Your task to perform on an android device: Open Android settings Image 0: 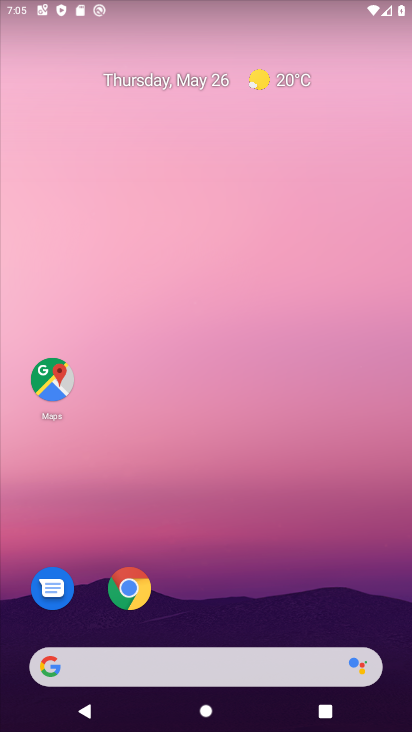
Step 0: drag from (387, 634) to (259, 8)
Your task to perform on an android device: Open Android settings Image 1: 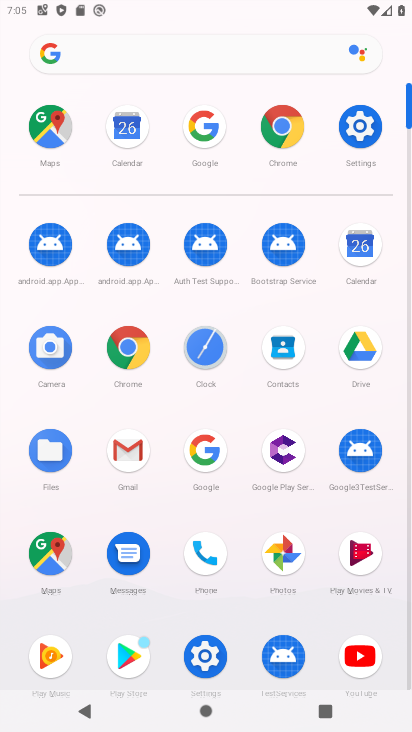
Step 1: click (351, 135)
Your task to perform on an android device: Open Android settings Image 2: 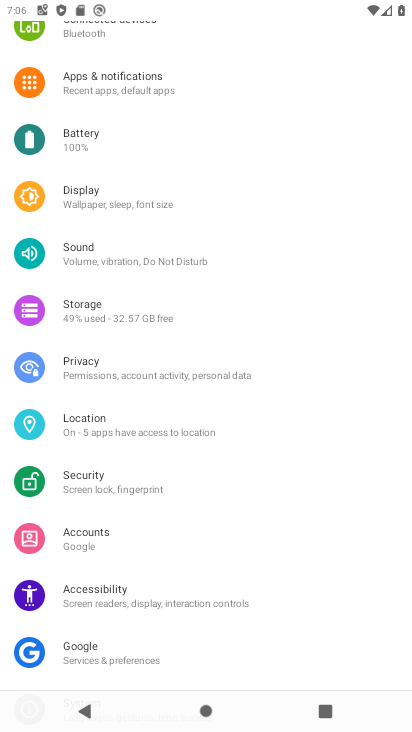
Step 2: drag from (108, 622) to (133, 93)
Your task to perform on an android device: Open Android settings Image 3: 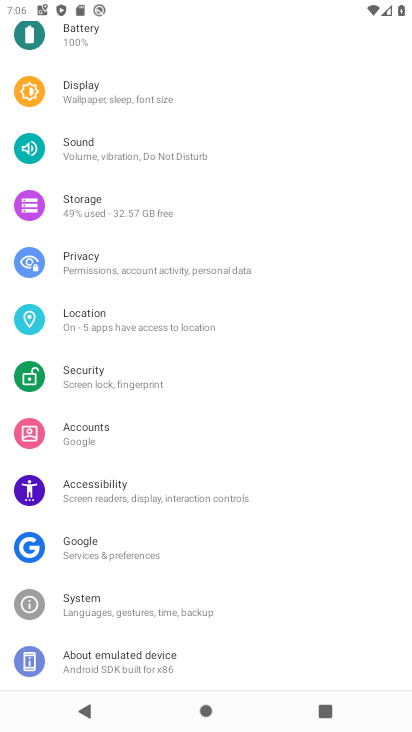
Step 3: click (110, 646)
Your task to perform on an android device: Open Android settings Image 4: 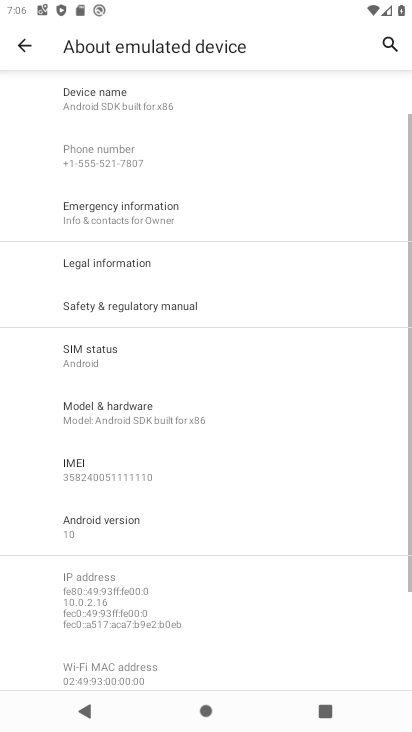
Step 4: click (159, 516)
Your task to perform on an android device: Open Android settings Image 5: 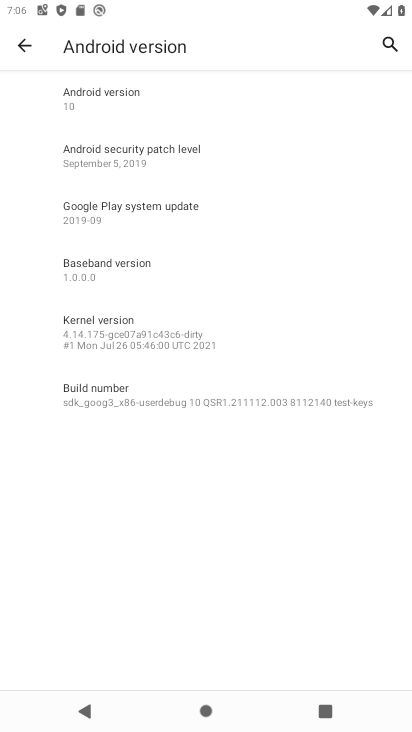
Step 5: task complete